Your task to perform on an android device: Search for pizza restaurants on Maps Image 0: 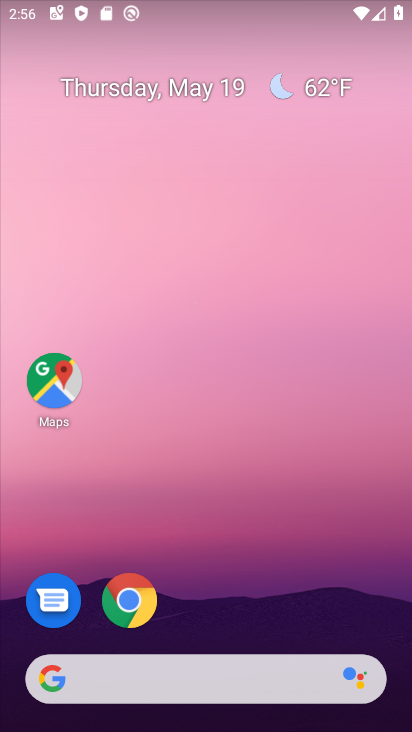
Step 0: click (34, 365)
Your task to perform on an android device: Search for pizza restaurants on Maps Image 1: 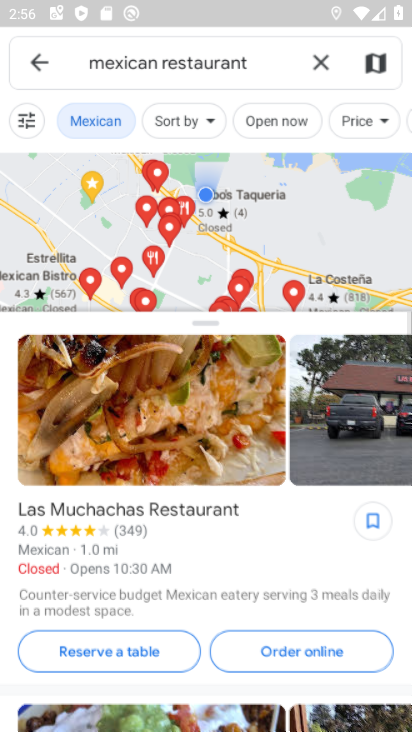
Step 1: click (324, 56)
Your task to perform on an android device: Search for pizza restaurants on Maps Image 2: 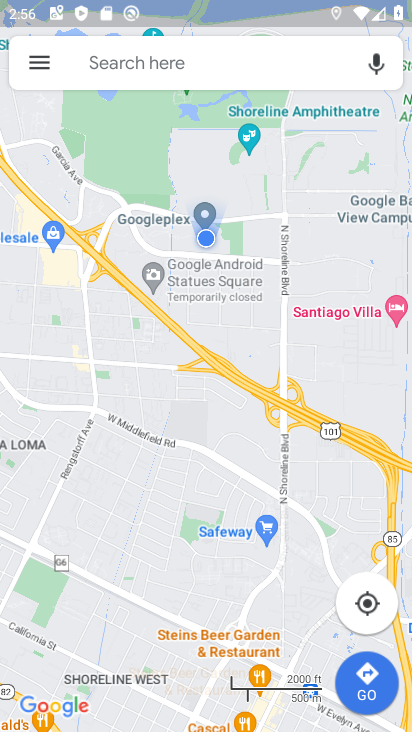
Step 2: click (155, 64)
Your task to perform on an android device: Search for pizza restaurants on Maps Image 3: 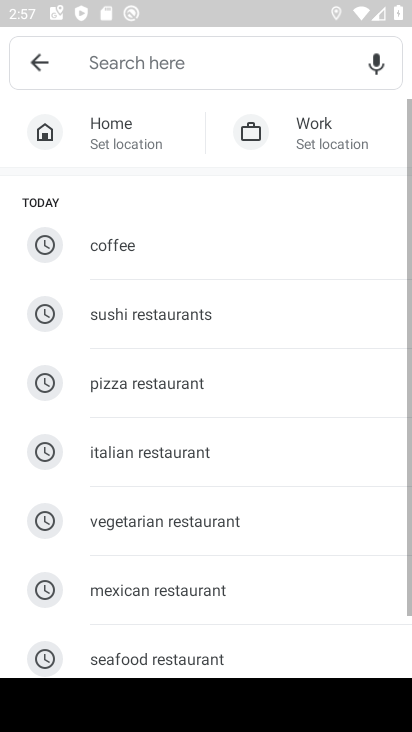
Step 3: click (188, 395)
Your task to perform on an android device: Search for pizza restaurants on Maps Image 4: 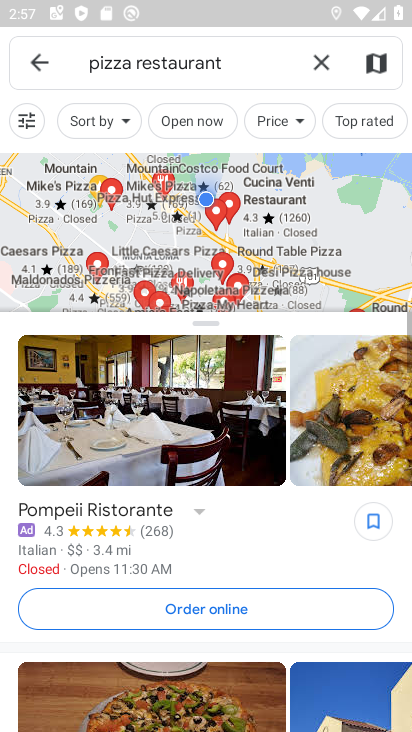
Step 4: task complete